Your task to perform on an android device: see sites visited before in the chrome app Image 0: 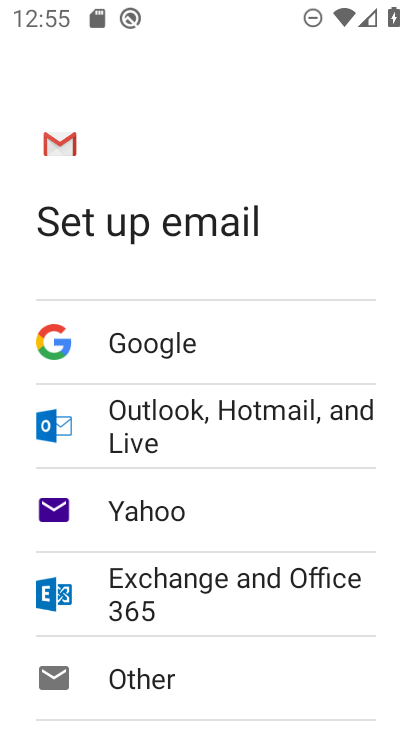
Step 0: press home button
Your task to perform on an android device: see sites visited before in the chrome app Image 1: 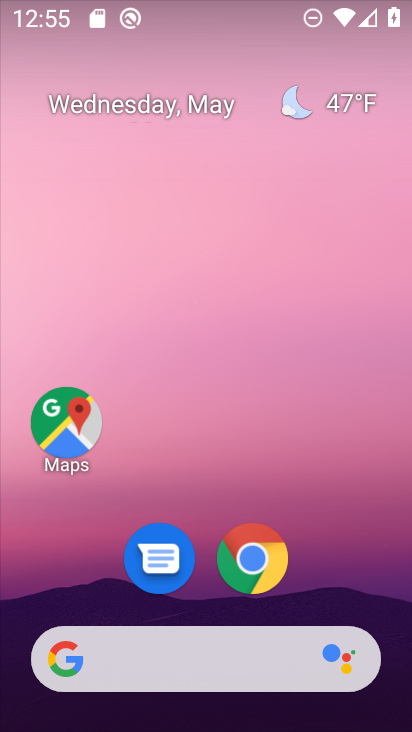
Step 1: click (268, 560)
Your task to perform on an android device: see sites visited before in the chrome app Image 2: 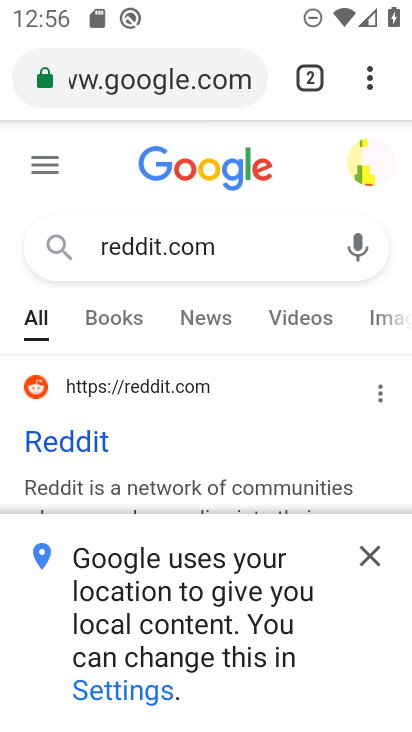
Step 2: click (365, 547)
Your task to perform on an android device: see sites visited before in the chrome app Image 3: 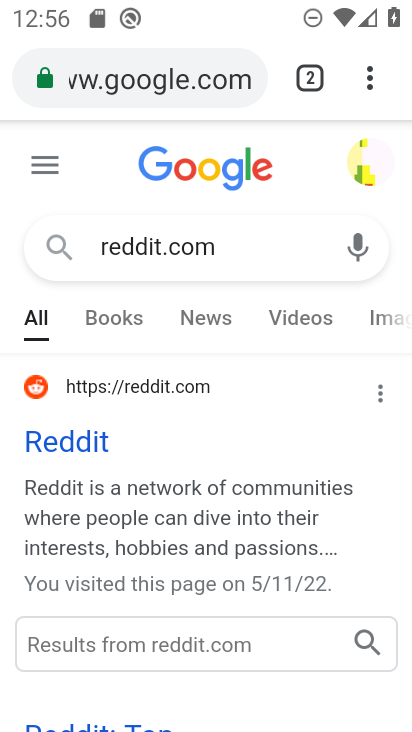
Step 3: click (382, 81)
Your task to perform on an android device: see sites visited before in the chrome app Image 4: 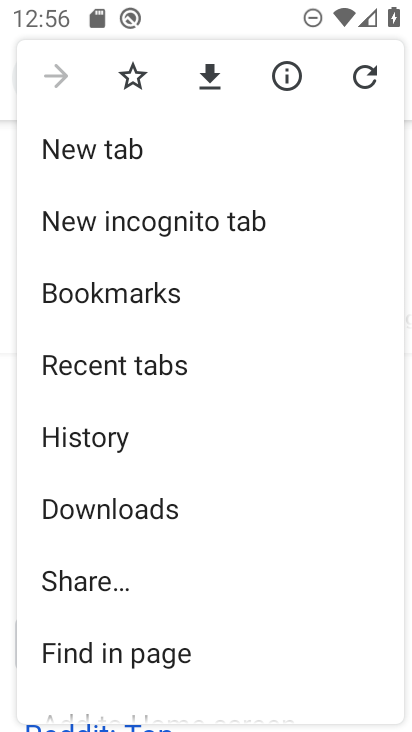
Step 4: click (134, 466)
Your task to perform on an android device: see sites visited before in the chrome app Image 5: 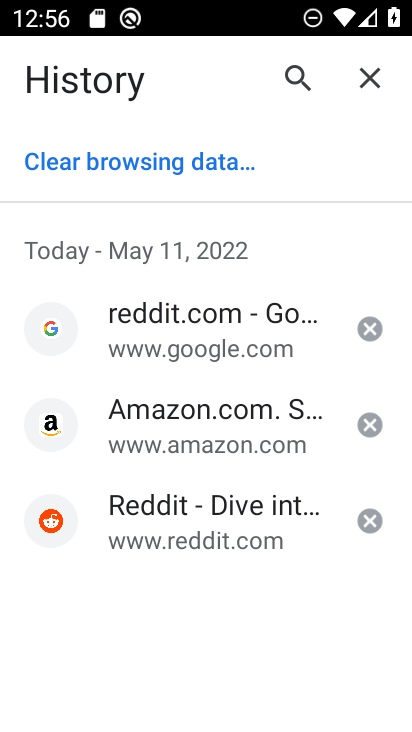
Step 5: task complete